Your task to perform on an android device: toggle javascript in the chrome app Image 0: 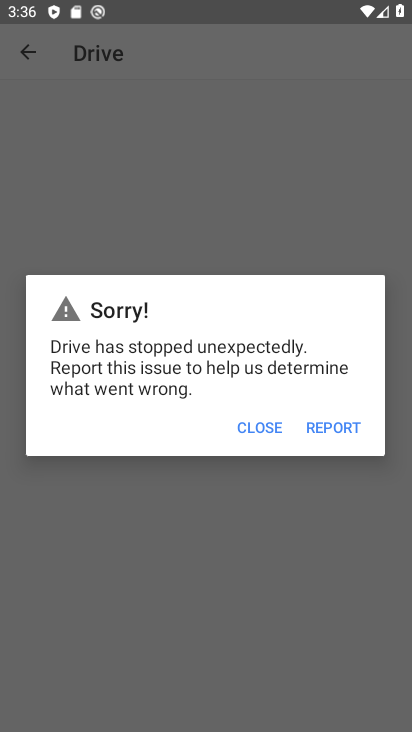
Step 0: press home button
Your task to perform on an android device: toggle javascript in the chrome app Image 1: 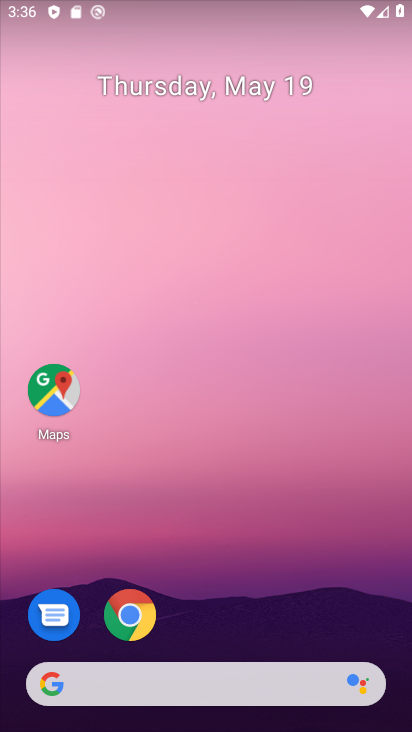
Step 1: click (134, 608)
Your task to perform on an android device: toggle javascript in the chrome app Image 2: 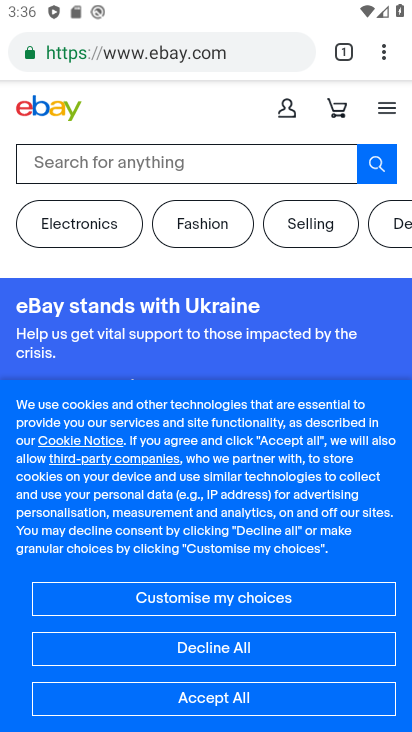
Step 2: drag from (383, 51) to (204, 628)
Your task to perform on an android device: toggle javascript in the chrome app Image 3: 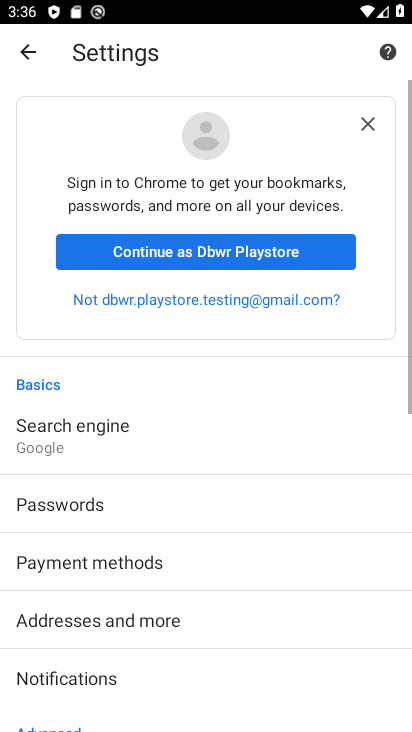
Step 3: drag from (201, 630) to (241, 26)
Your task to perform on an android device: toggle javascript in the chrome app Image 4: 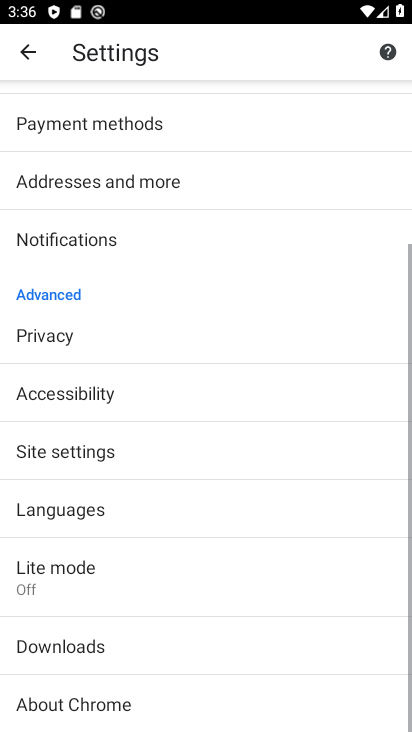
Step 4: click (68, 455)
Your task to perform on an android device: toggle javascript in the chrome app Image 5: 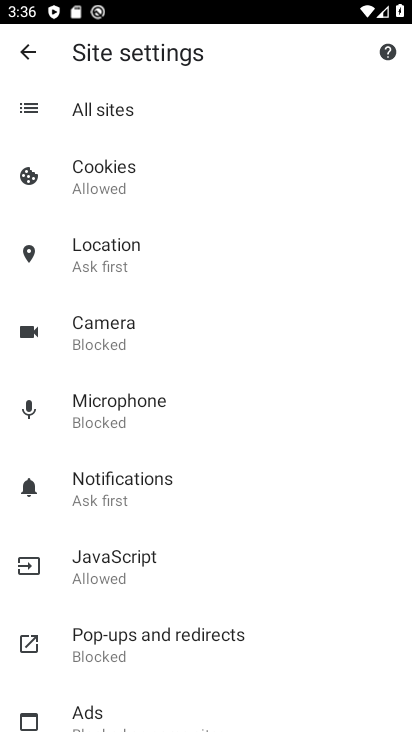
Step 5: click (135, 564)
Your task to perform on an android device: toggle javascript in the chrome app Image 6: 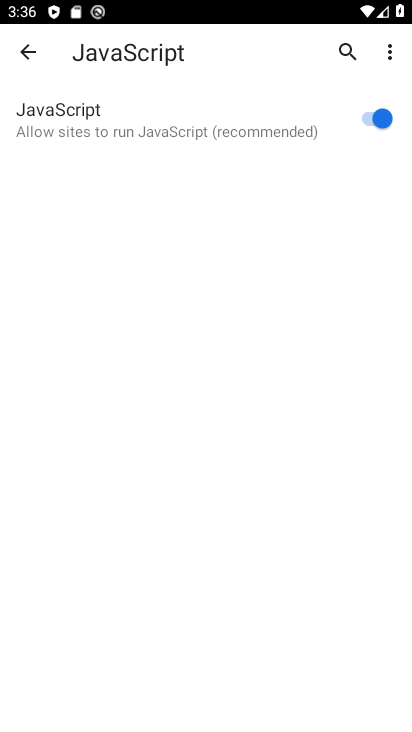
Step 6: click (371, 115)
Your task to perform on an android device: toggle javascript in the chrome app Image 7: 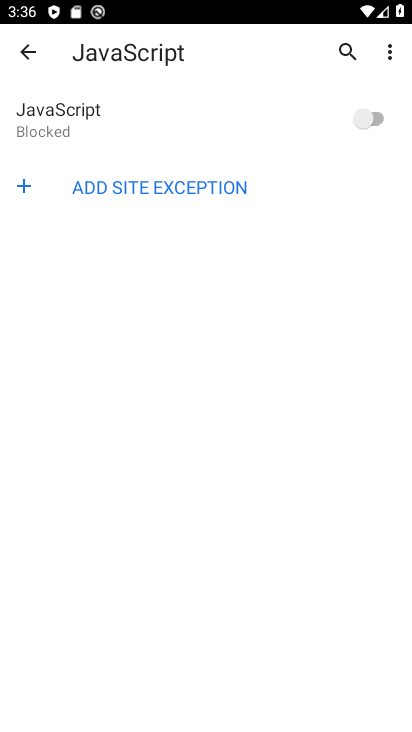
Step 7: task complete